Your task to perform on an android device: Search for seafood restaurants on Google Maps Image 0: 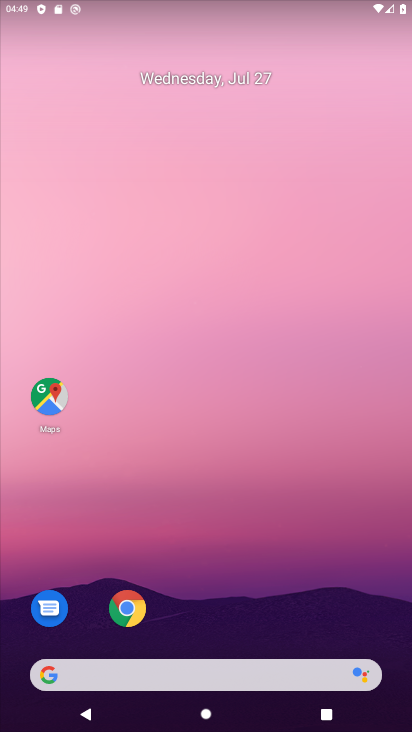
Step 0: press home button
Your task to perform on an android device: Search for seafood restaurants on Google Maps Image 1: 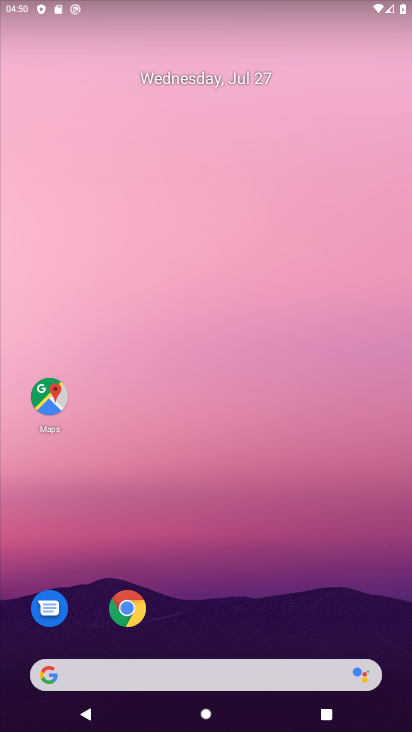
Step 1: drag from (283, 617) to (88, 1)
Your task to perform on an android device: Search for seafood restaurants on Google Maps Image 2: 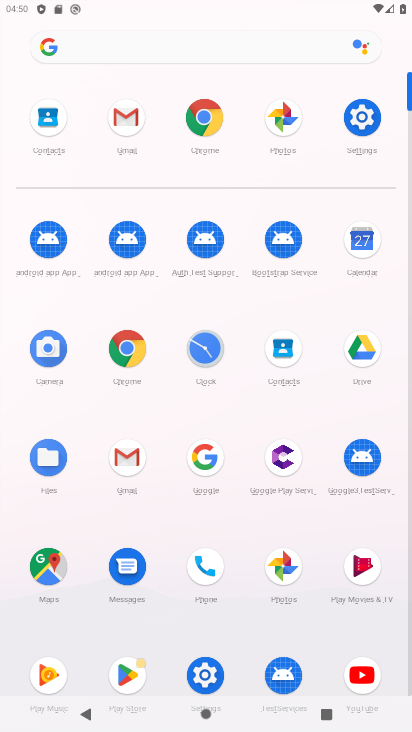
Step 2: click (43, 572)
Your task to perform on an android device: Search for seafood restaurants on Google Maps Image 3: 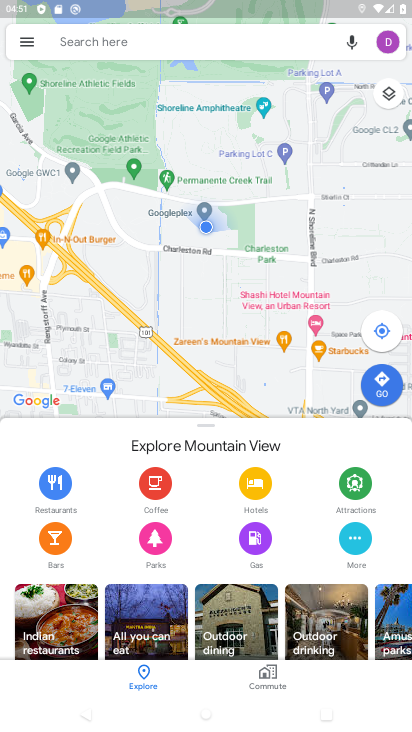
Step 3: click (191, 35)
Your task to perform on an android device: Search for seafood restaurants on Google Maps Image 4: 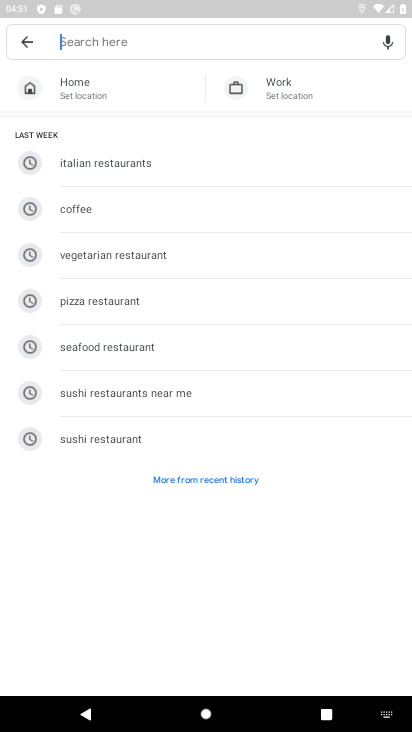
Step 4: click (121, 351)
Your task to perform on an android device: Search for seafood restaurants on Google Maps Image 5: 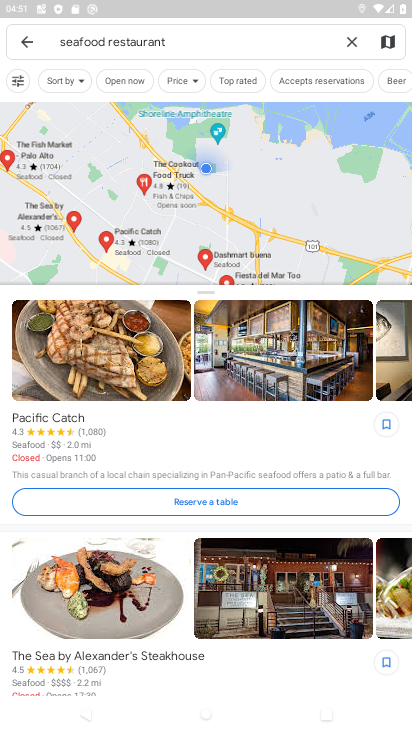
Step 5: task complete